Your task to perform on an android device: Open notification settings Image 0: 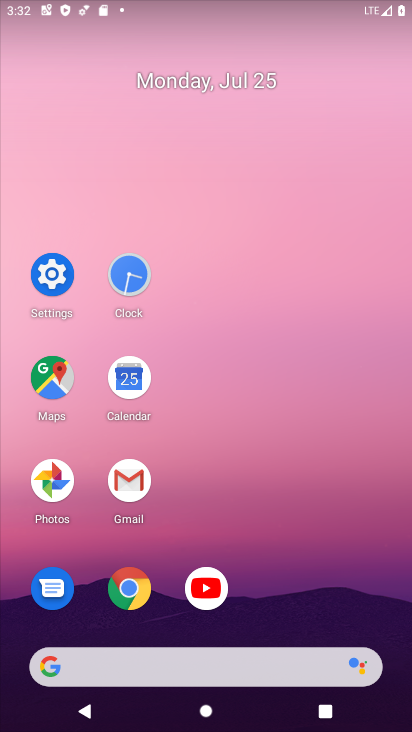
Step 0: click (51, 272)
Your task to perform on an android device: Open notification settings Image 1: 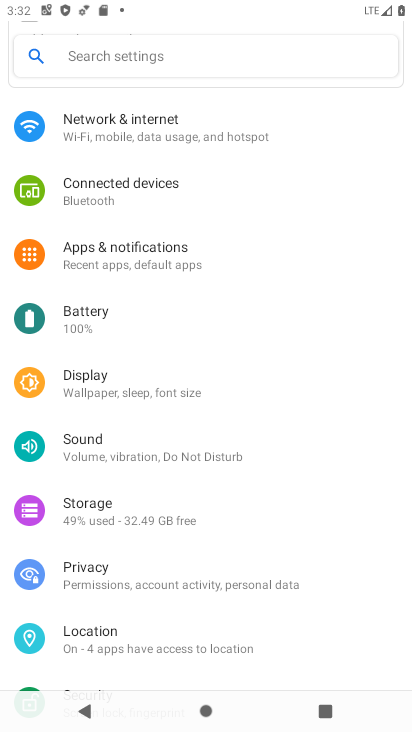
Step 1: click (117, 241)
Your task to perform on an android device: Open notification settings Image 2: 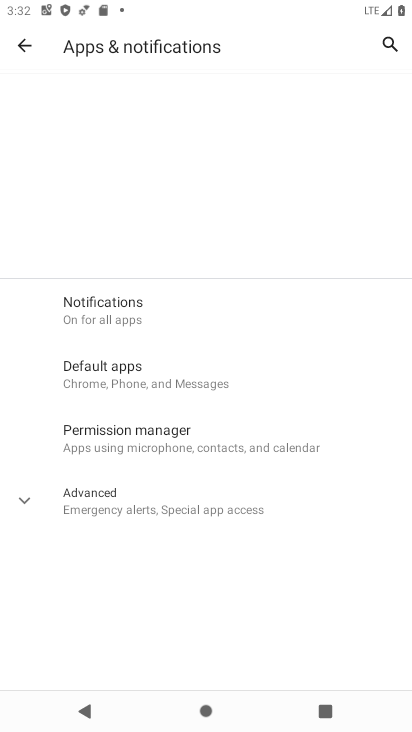
Step 2: task complete